Your task to perform on an android device: delete the emails in spam in the gmail app Image 0: 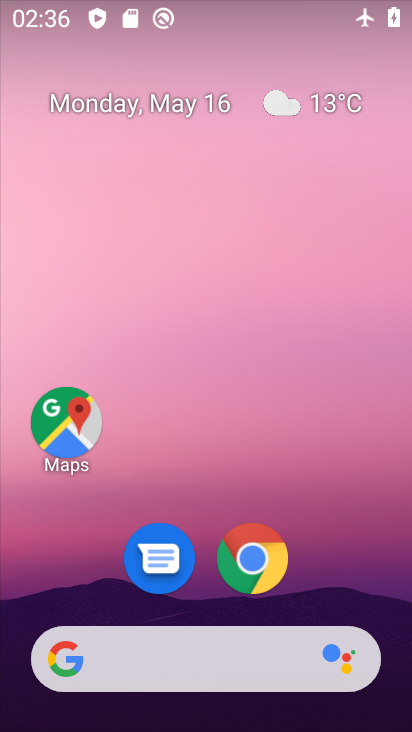
Step 0: drag from (217, 597) to (130, 32)
Your task to perform on an android device: delete the emails in spam in the gmail app Image 1: 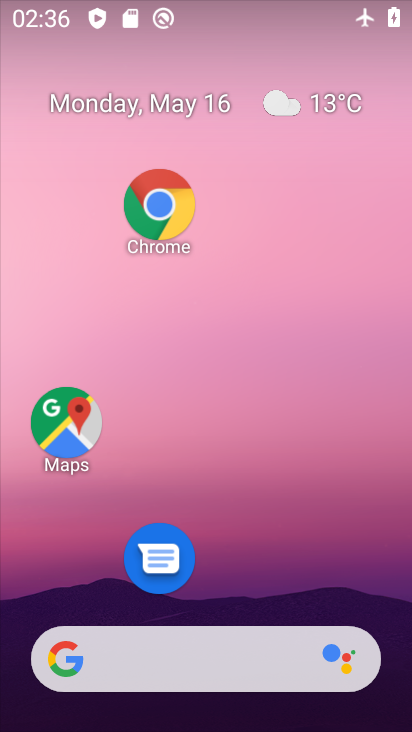
Step 1: drag from (261, 618) to (207, 1)
Your task to perform on an android device: delete the emails in spam in the gmail app Image 2: 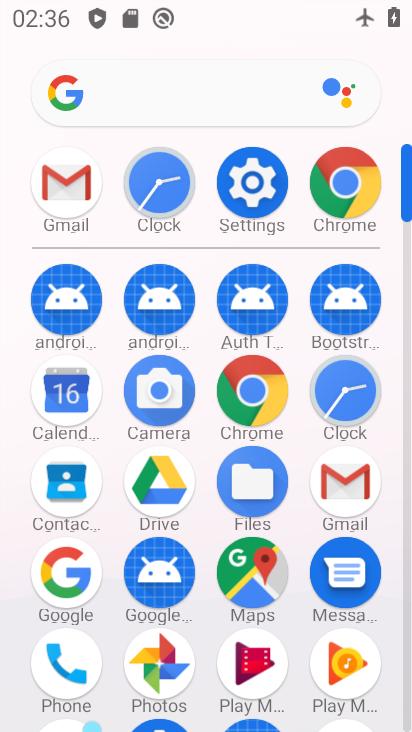
Step 2: click (334, 483)
Your task to perform on an android device: delete the emails in spam in the gmail app Image 3: 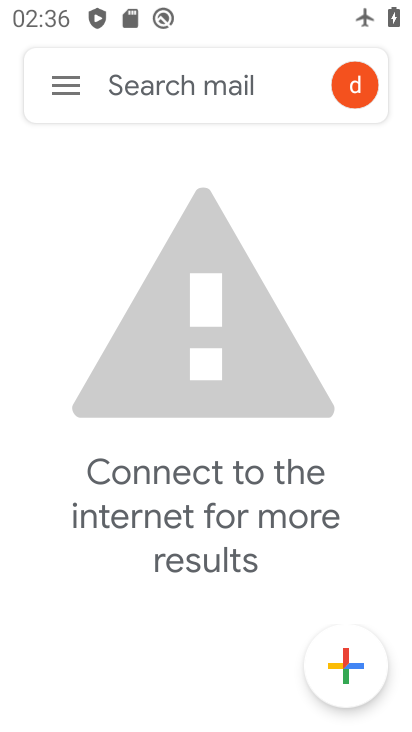
Step 3: click (77, 103)
Your task to perform on an android device: delete the emails in spam in the gmail app Image 4: 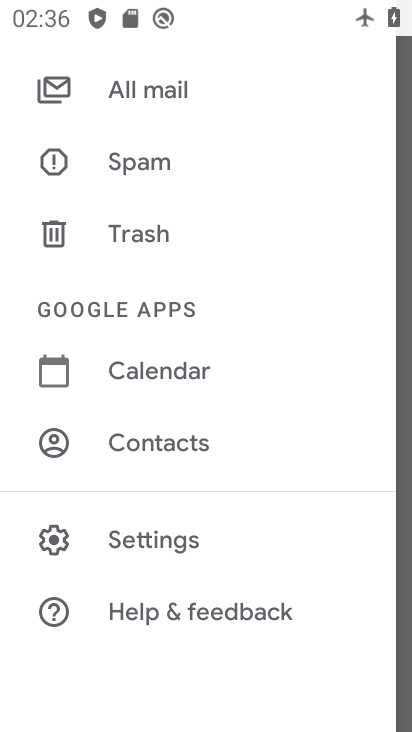
Step 4: click (140, 94)
Your task to perform on an android device: delete the emails in spam in the gmail app Image 5: 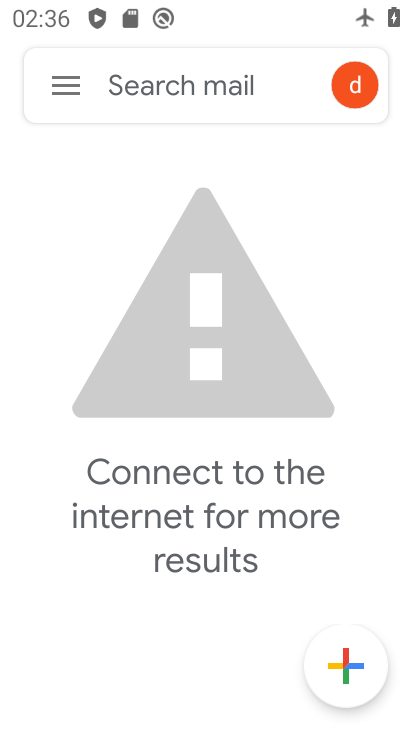
Step 5: task complete